Your task to perform on an android device: What's the weather going to be this weekend? Image 0: 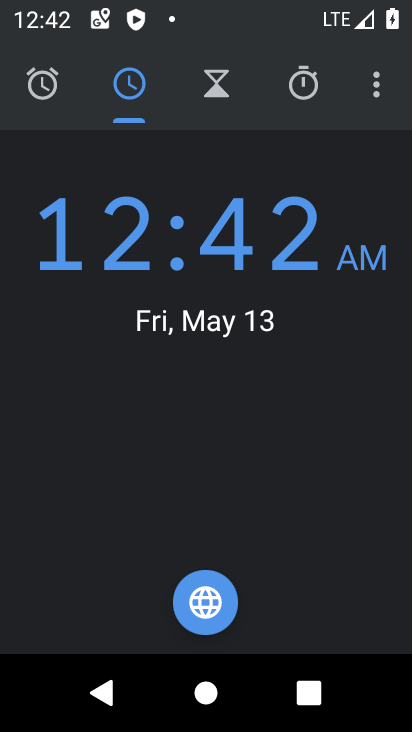
Step 0: press back button
Your task to perform on an android device: What's the weather going to be this weekend? Image 1: 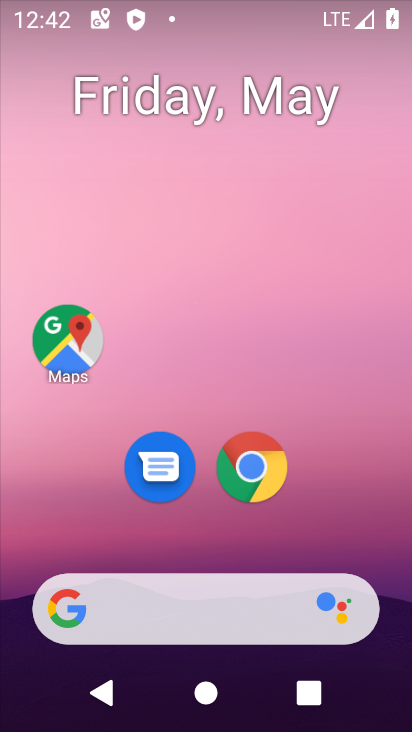
Step 1: drag from (334, 503) to (280, 94)
Your task to perform on an android device: What's the weather going to be this weekend? Image 2: 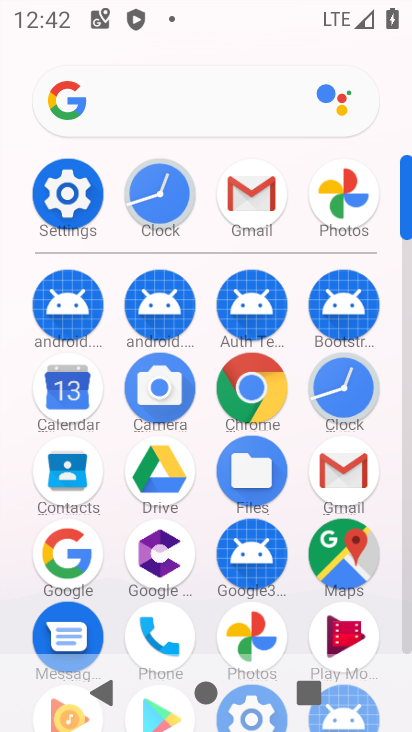
Step 2: drag from (206, 523) to (201, 308)
Your task to perform on an android device: What's the weather going to be this weekend? Image 3: 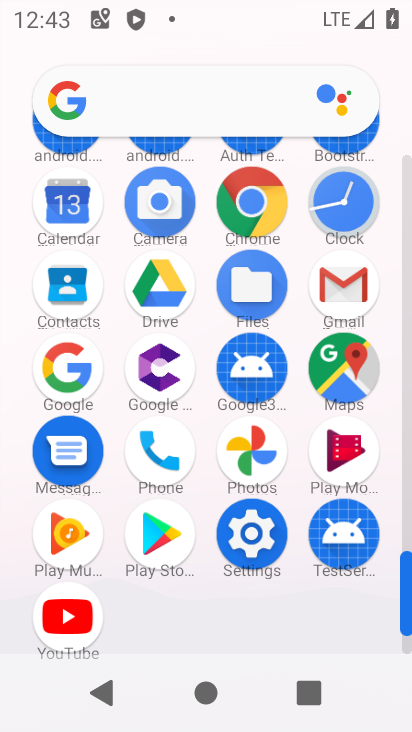
Step 3: click (61, 366)
Your task to perform on an android device: What's the weather going to be this weekend? Image 4: 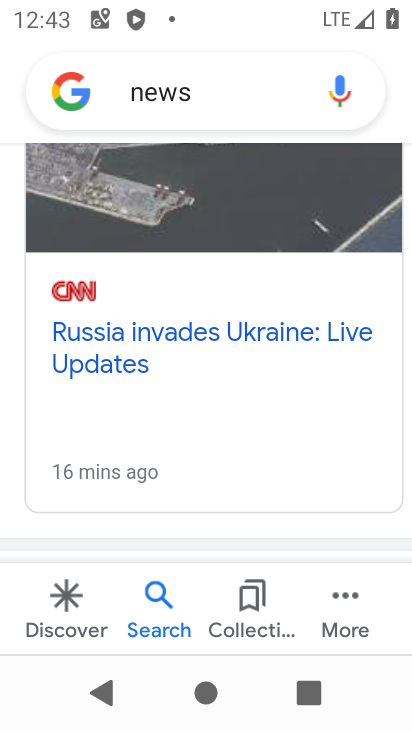
Step 4: click (211, 102)
Your task to perform on an android device: What's the weather going to be this weekend? Image 5: 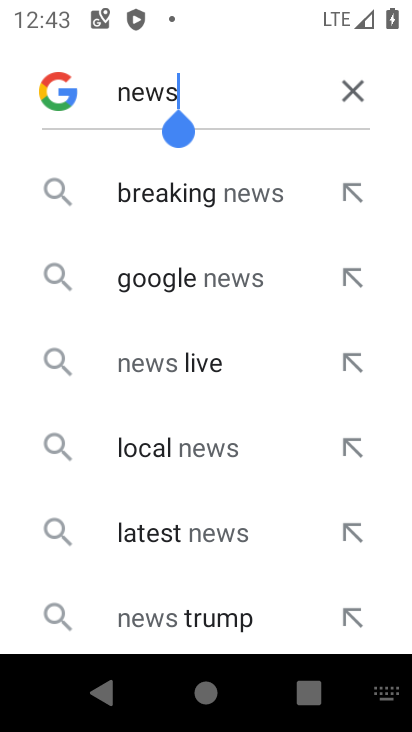
Step 5: click (360, 88)
Your task to perform on an android device: What's the weather going to be this weekend? Image 6: 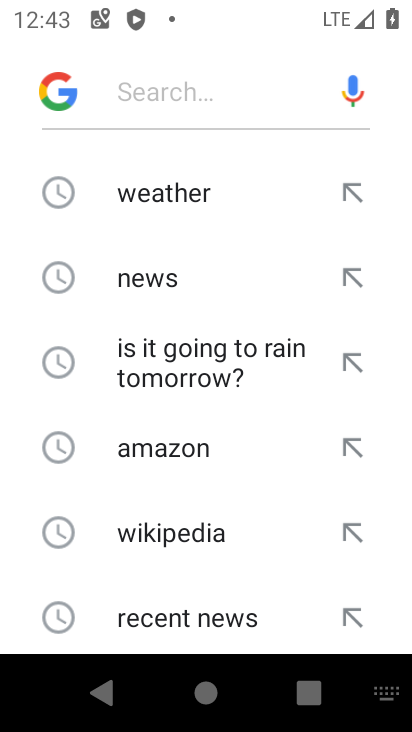
Step 6: type "weather weekend"
Your task to perform on an android device: What's the weather going to be this weekend? Image 7: 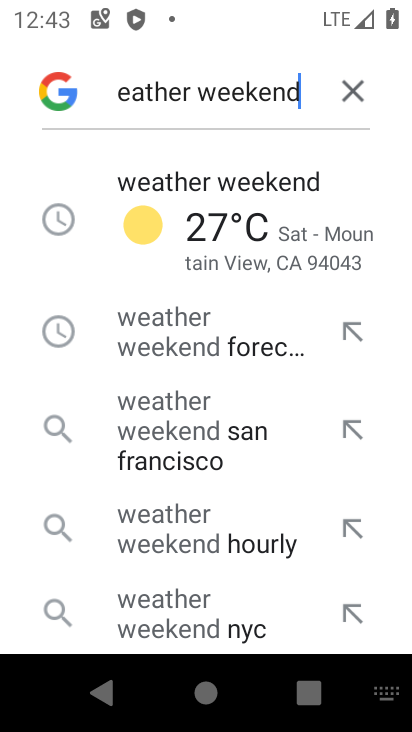
Step 7: click (241, 215)
Your task to perform on an android device: What's the weather going to be this weekend? Image 8: 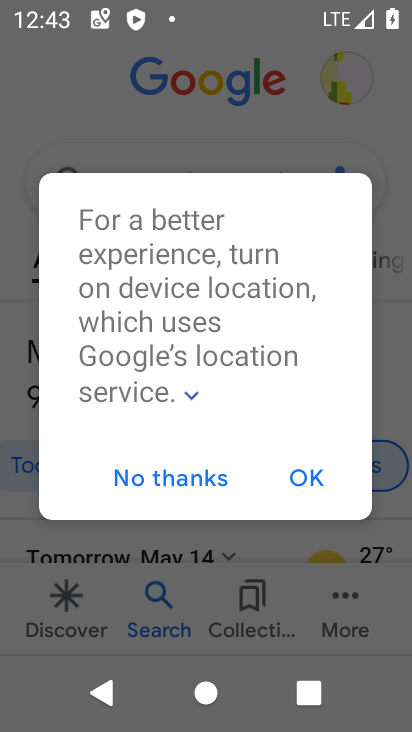
Step 8: click (172, 487)
Your task to perform on an android device: What's the weather going to be this weekend? Image 9: 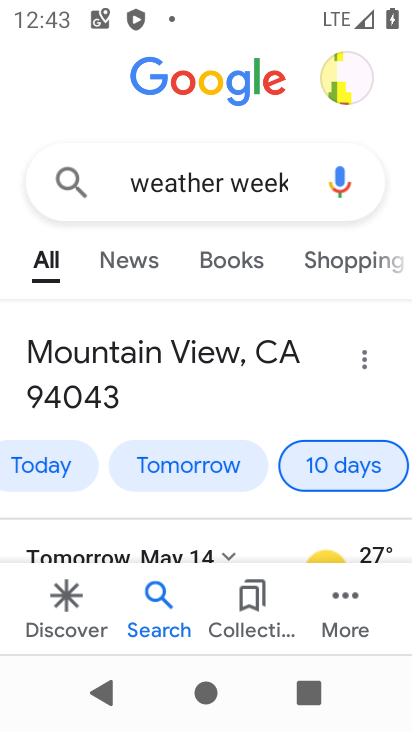
Step 9: task complete